Your task to perform on an android device: Empty the shopping cart on bestbuy. Image 0: 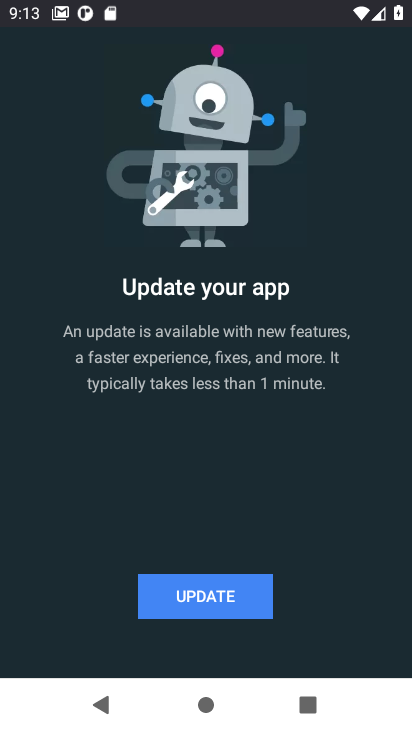
Step 0: press home button
Your task to perform on an android device: Empty the shopping cart on bestbuy. Image 1: 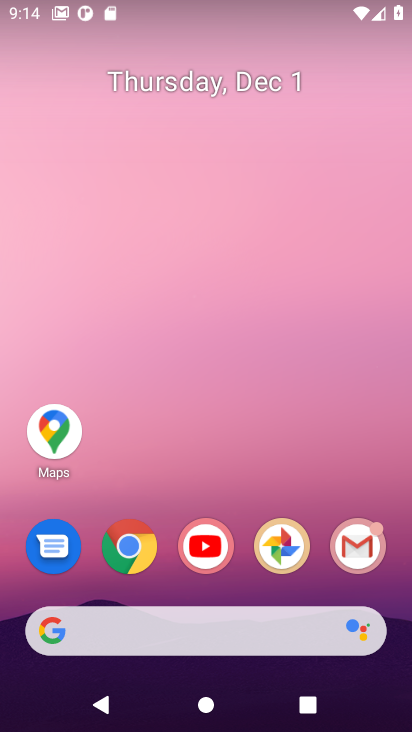
Step 1: click (136, 552)
Your task to perform on an android device: Empty the shopping cart on bestbuy. Image 2: 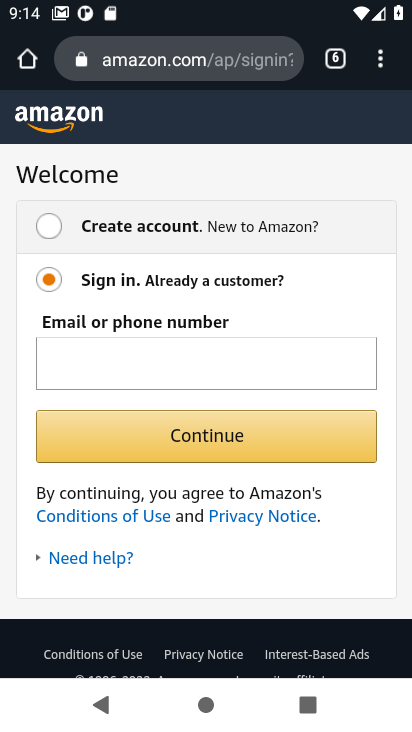
Step 2: click (214, 70)
Your task to perform on an android device: Empty the shopping cart on bestbuy. Image 3: 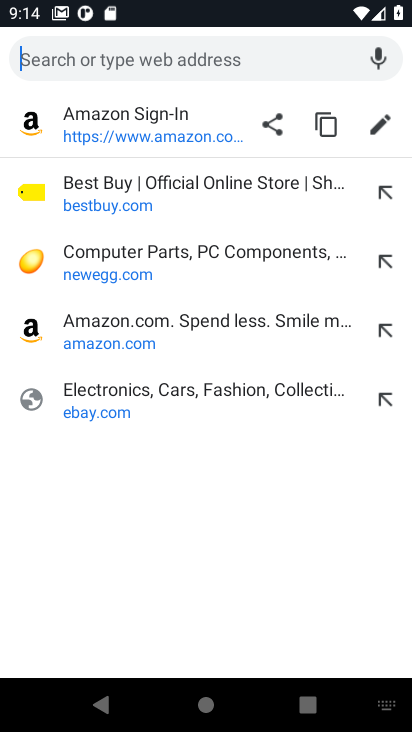
Step 3: click (127, 192)
Your task to perform on an android device: Empty the shopping cart on bestbuy. Image 4: 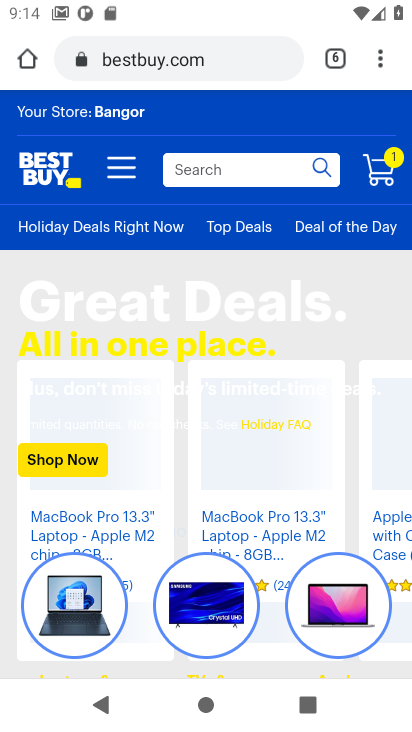
Step 4: click (378, 169)
Your task to perform on an android device: Empty the shopping cart on bestbuy. Image 5: 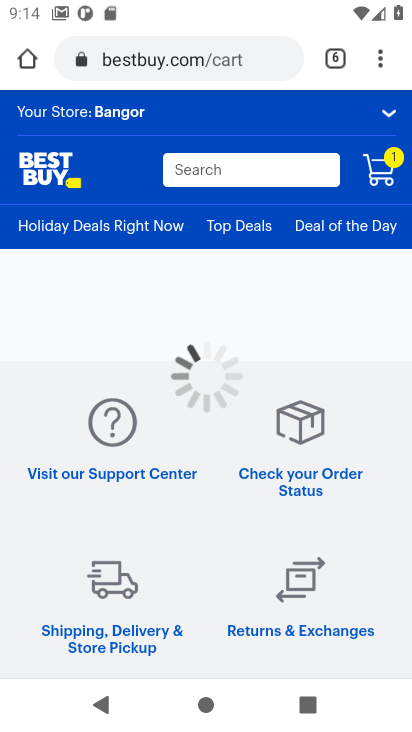
Step 5: drag from (324, 382) to (317, 180)
Your task to perform on an android device: Empty the shopping cart on bestbuy. Image 6: 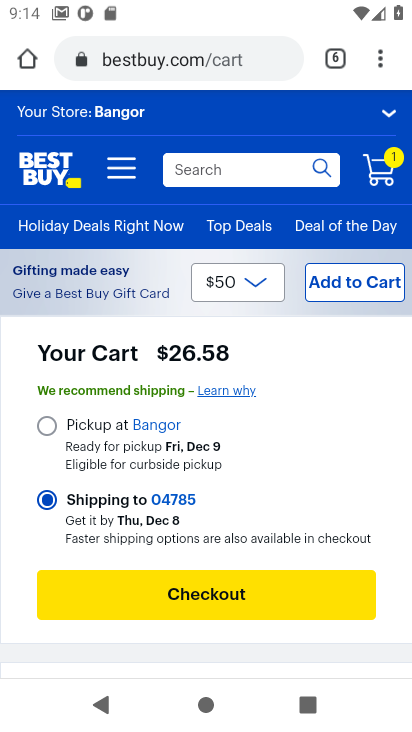
Step 6: drag from (282, 513) to (259, 280)
Your task to perform on an android device: Empty the shopping cart on bestbuy. Image 7: 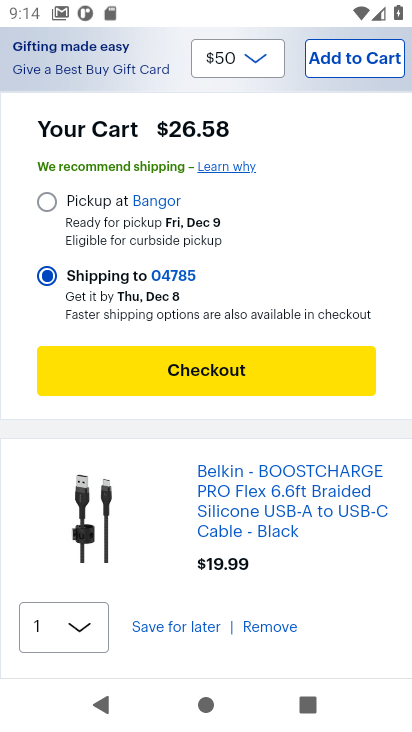
Step 7: click (272, 628)
Your task to perform on an android device: Empty the shopping cart on bestbuy. Image 8: 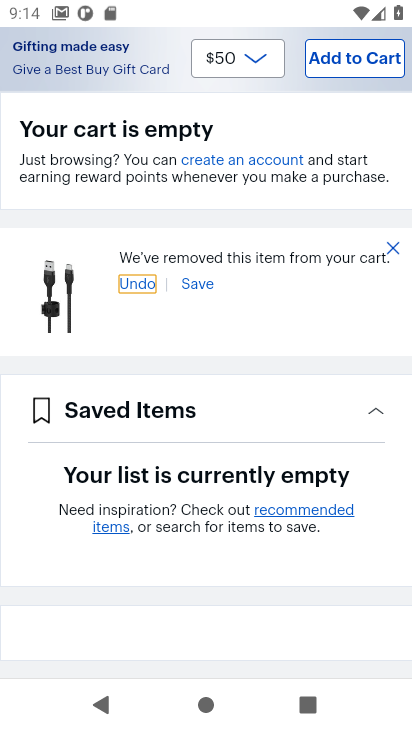
Step 8: task complete